Your task to perform on an android device: Open Chrome and go to settings Image 0: 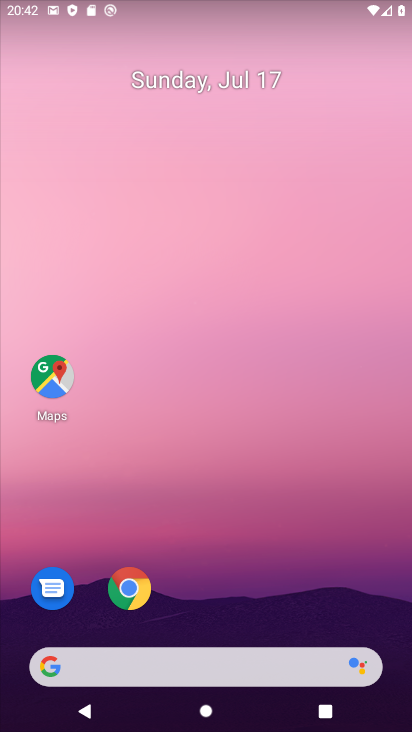
Step 0: press home button
Your task to perform on an android device: Open Chrome and go to settings Image 1: 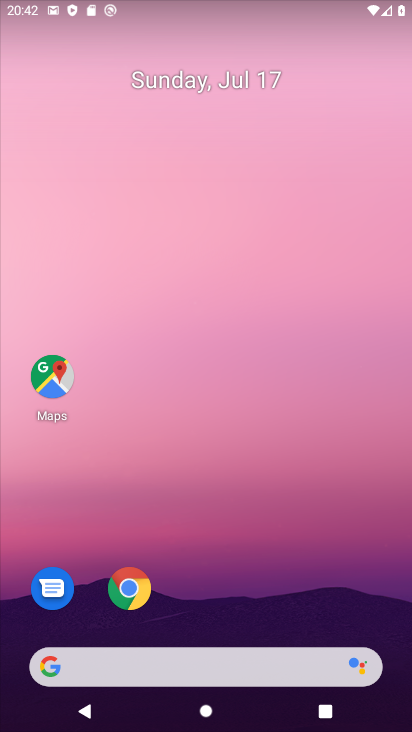
Step 1: click (111, 600)
Your task to perform on an android device: Open Chrome and go to settings Image 2: 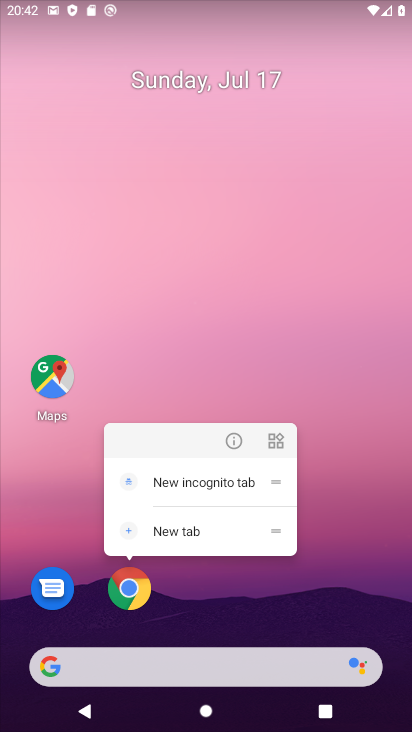
Step 2: click (111, 600)
Your task to perform on an android device: Open Chrome and go to settings Image 3: 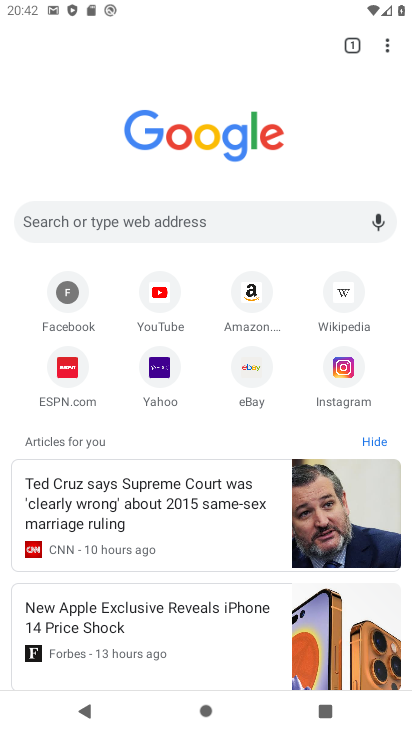
Step 3: task complete